Your task to perform on an android device: Open battery settings Image 0: 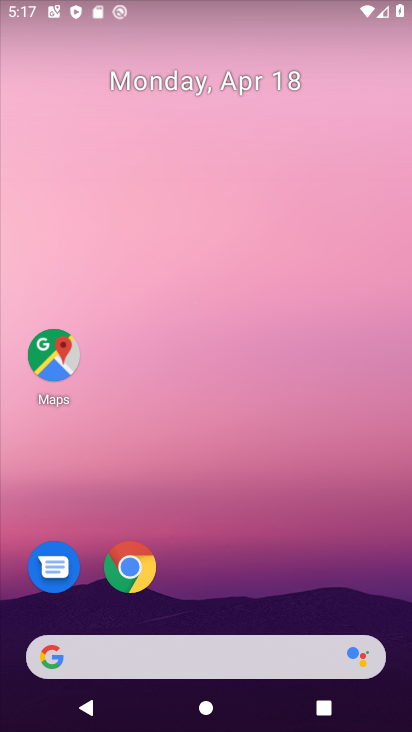
Step 0: drag from (339, 596) to (276, 8)
Your task to perform on an android device: Open battery settings Image 1: 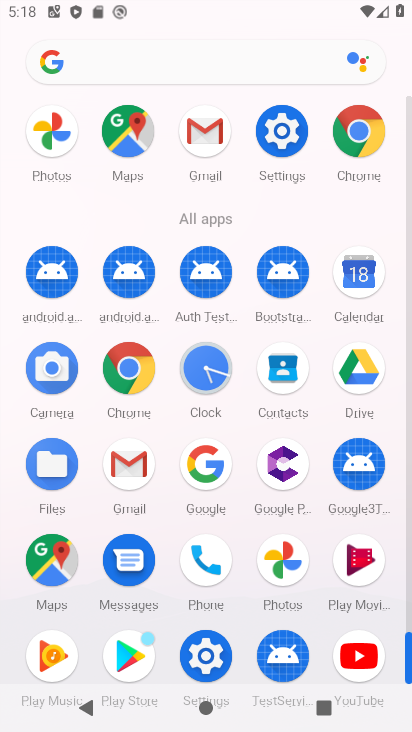
Step 1: click (281, 122)
Your task to perform on an android device: Open battery settings Image 2: 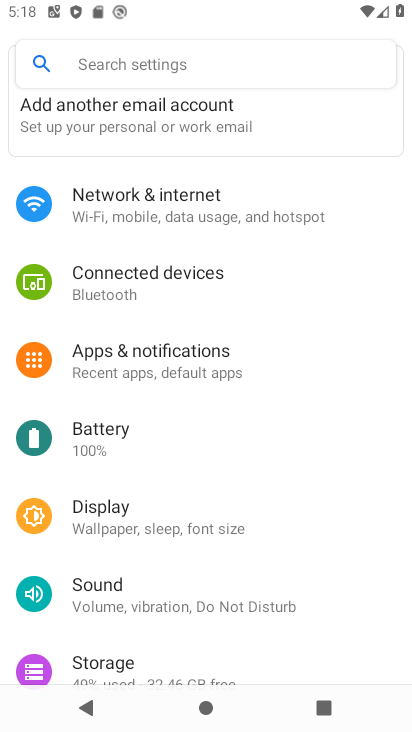
Step 2: click (120, 441)
Your task to perform on an android device: Open battery settings Image 3: 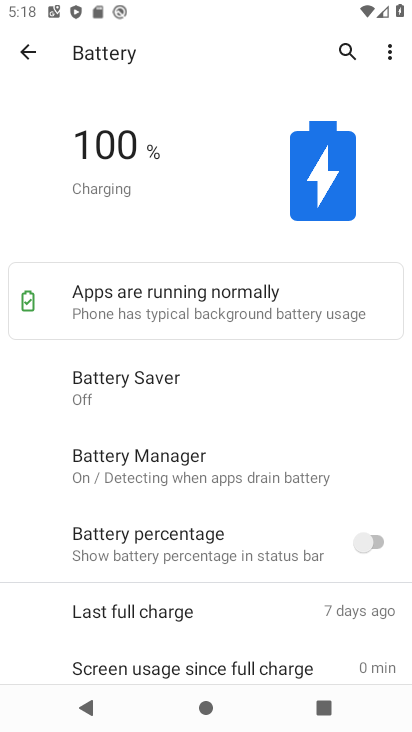
Step 3: task complete